Your task to perform on an android device: Open eBay Image 0: 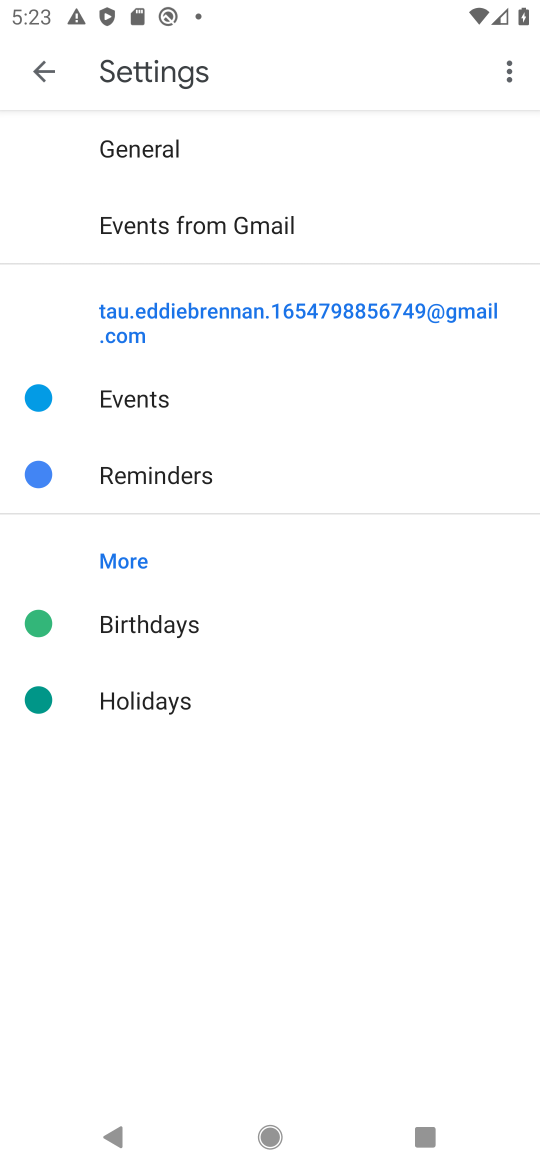
Step 0: press home button
Your task to perform on an android device: Open eBay Image 1: 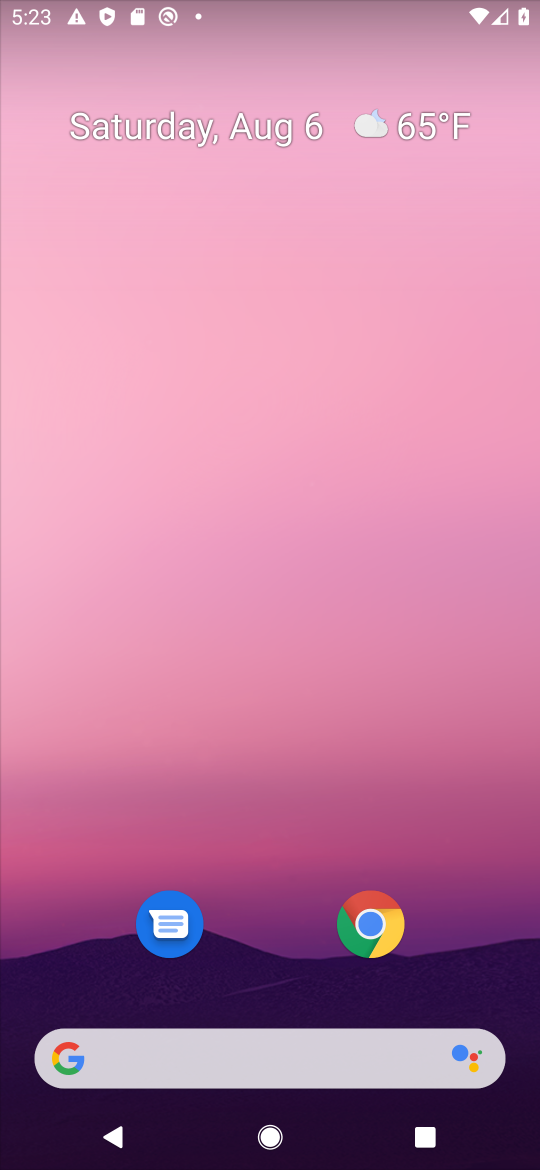
Step 1: drag from (401, 1116) to (380, 72)
Your task to perform on an android device: Open eBay Image 2: 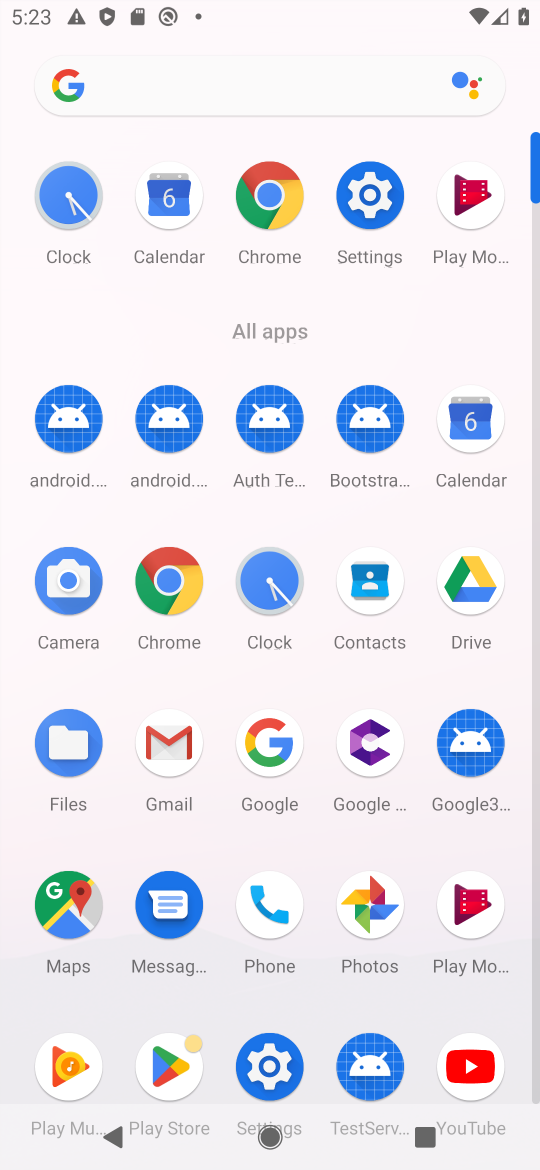
Step 2: click (360, 74)
Your task to perform on an android device: Open eBay Image 3: 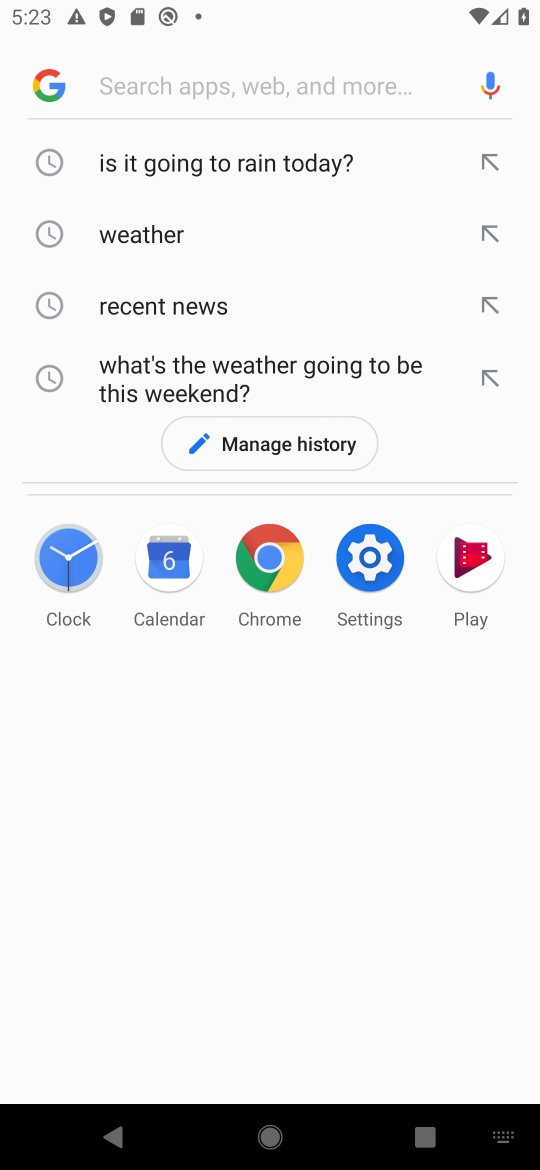
Step 3: type "ebay"
Your task to perform on an android device: Open eBay Image 4: 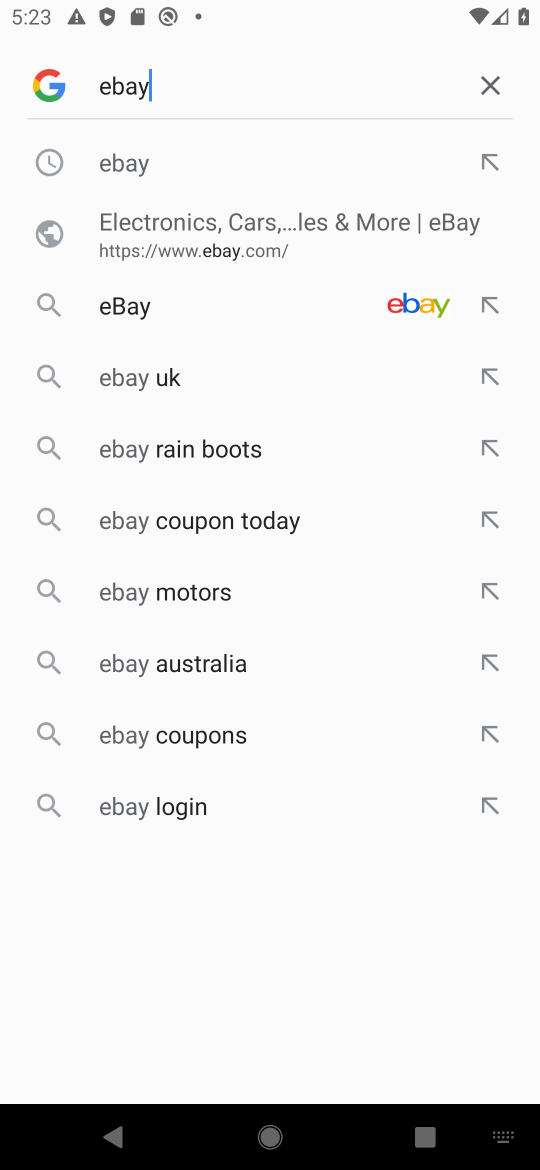
Step 4: click (424, 290)
Your task to perform on an android device: Open eBay Image 5: 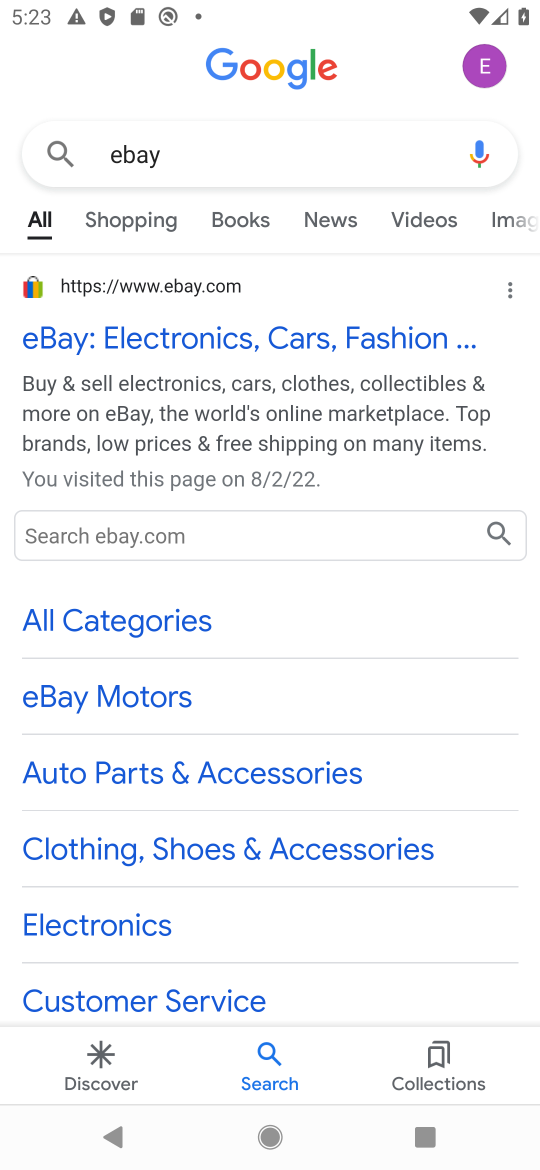
Step 5: click (186, 279)
Your task to perform on an android device: Open eBay Image 6: 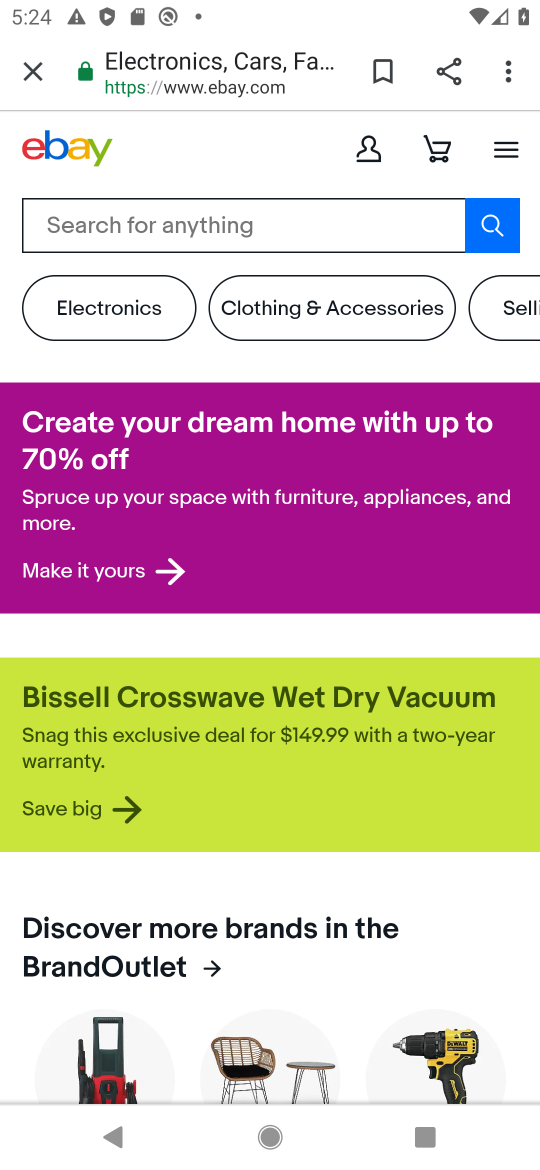
Step 6: task complete